Your task to perform on an android device: Check the weather Image 0: 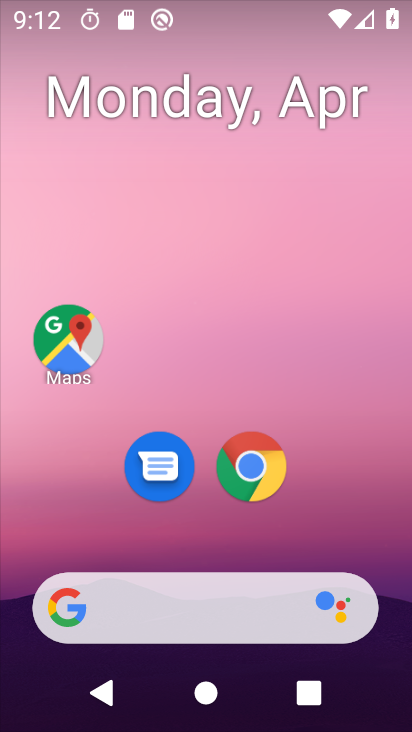
Step 0: drag from (193, 553) to (140, 6)
Your task to perform on an android device: Check the weather Image 1: 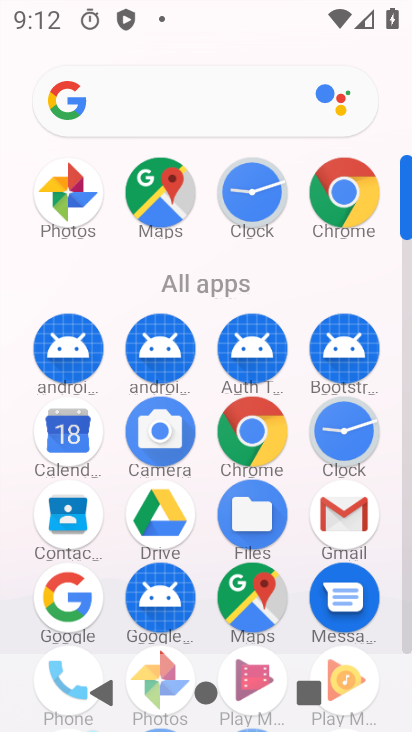
Step 1: drag from (293, 560) to (239, 50)
Your task to perform on an android device: Check the weather Image 2: 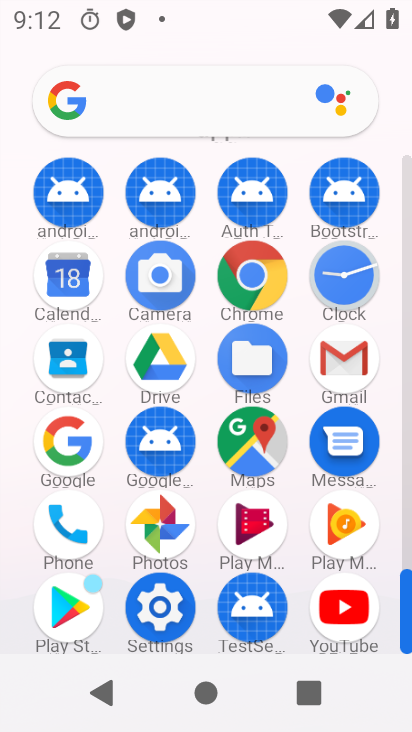
Step 2: click (74, 453)
Your task to perform on an android device: Check the weather Image 3: 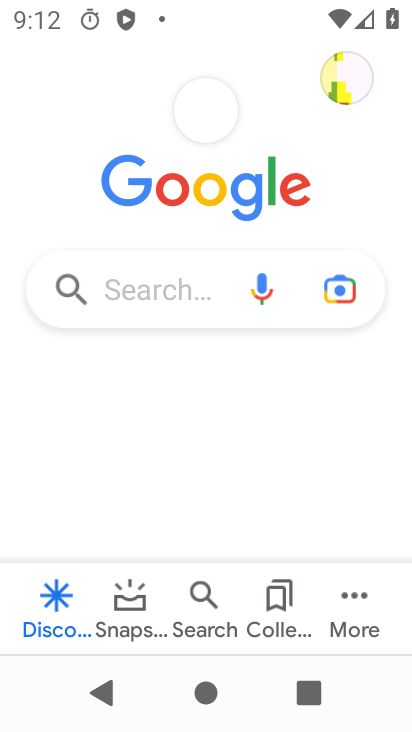
Step 3: click (171, 292)
Your task to perform on an android device: Check the weather Image 4: 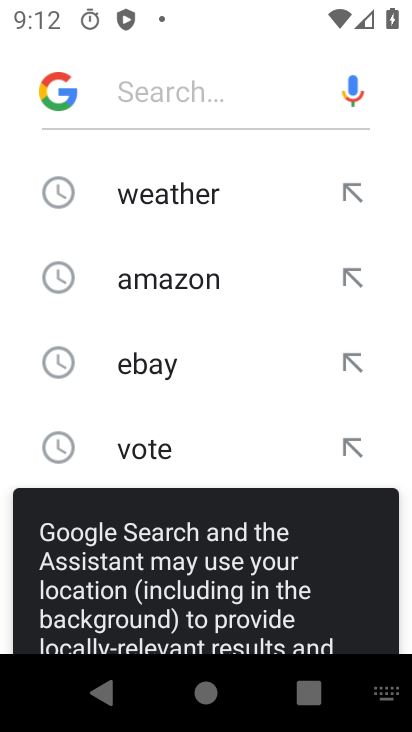
Step 4: click (147, 197)
Your task to perform on an android device: Check the weather Image 5: 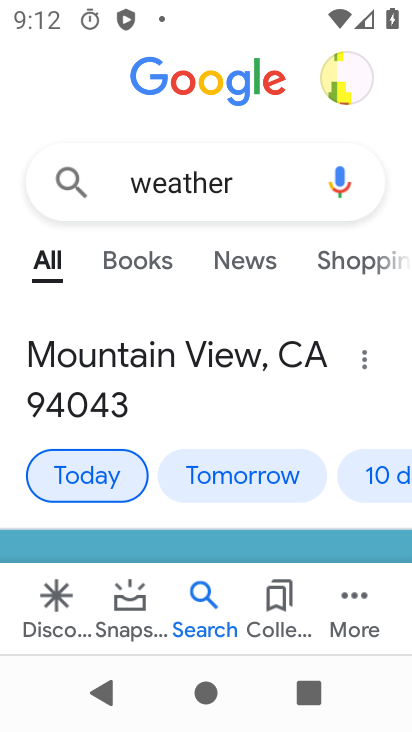
Step 5: task complete